Your task to perform on an android device: change alarm snooze length Image 0: 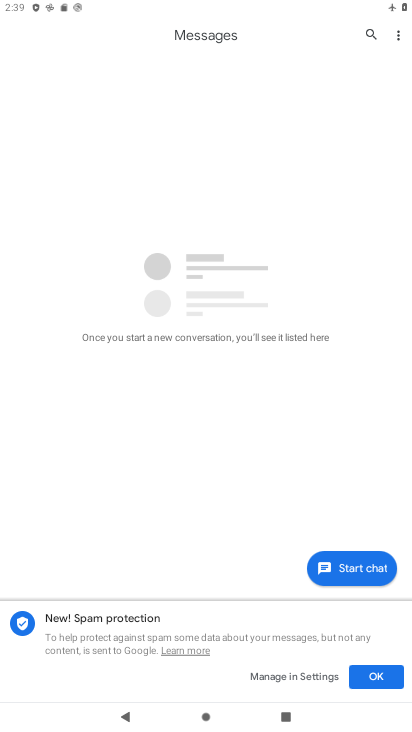
Step 0: press home button
Your task to perform on an android device: change alarm snooze length Image 1: 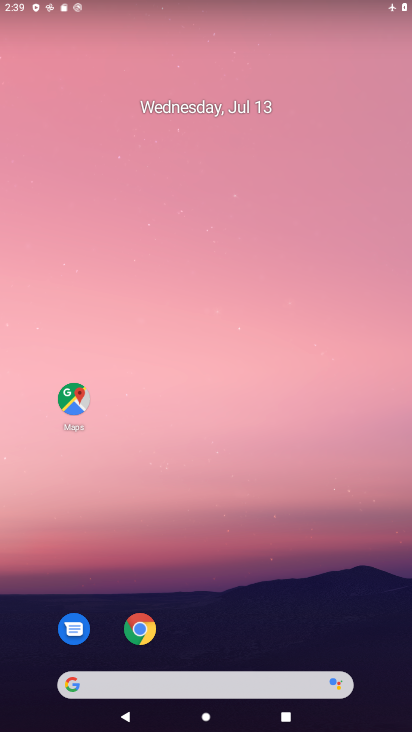
Step 1: task complete